Your task to perform on an android device: Install the Calendar app Image 0: 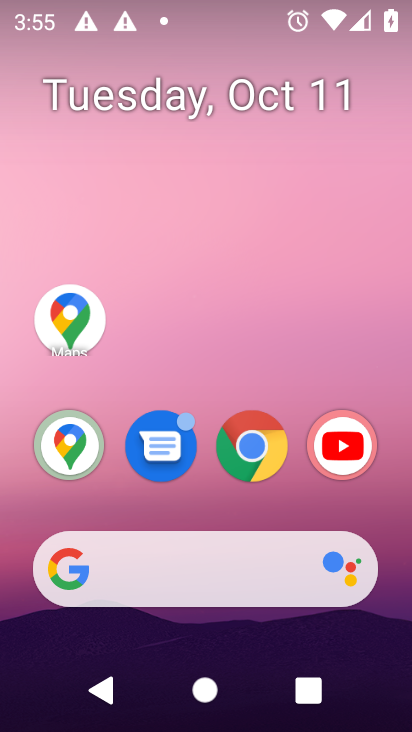
Step 0: drag from (290, 509) to (278, 10)
Your task to perform on an android device: Install the Calendar app Image 1: 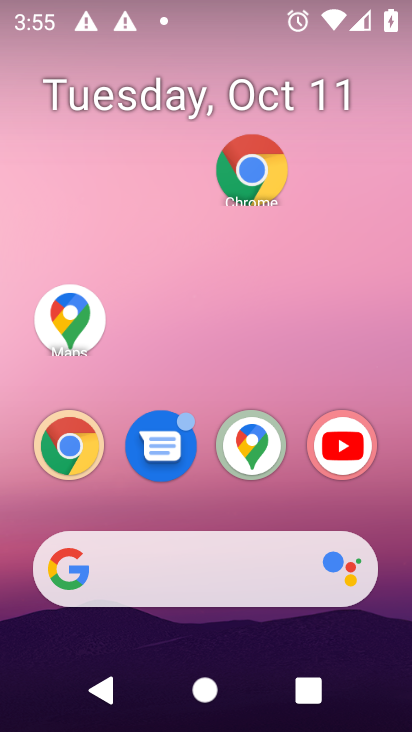
Step 1: task complete